Your task to perform on an android device: Search for a new hair product Image 0: 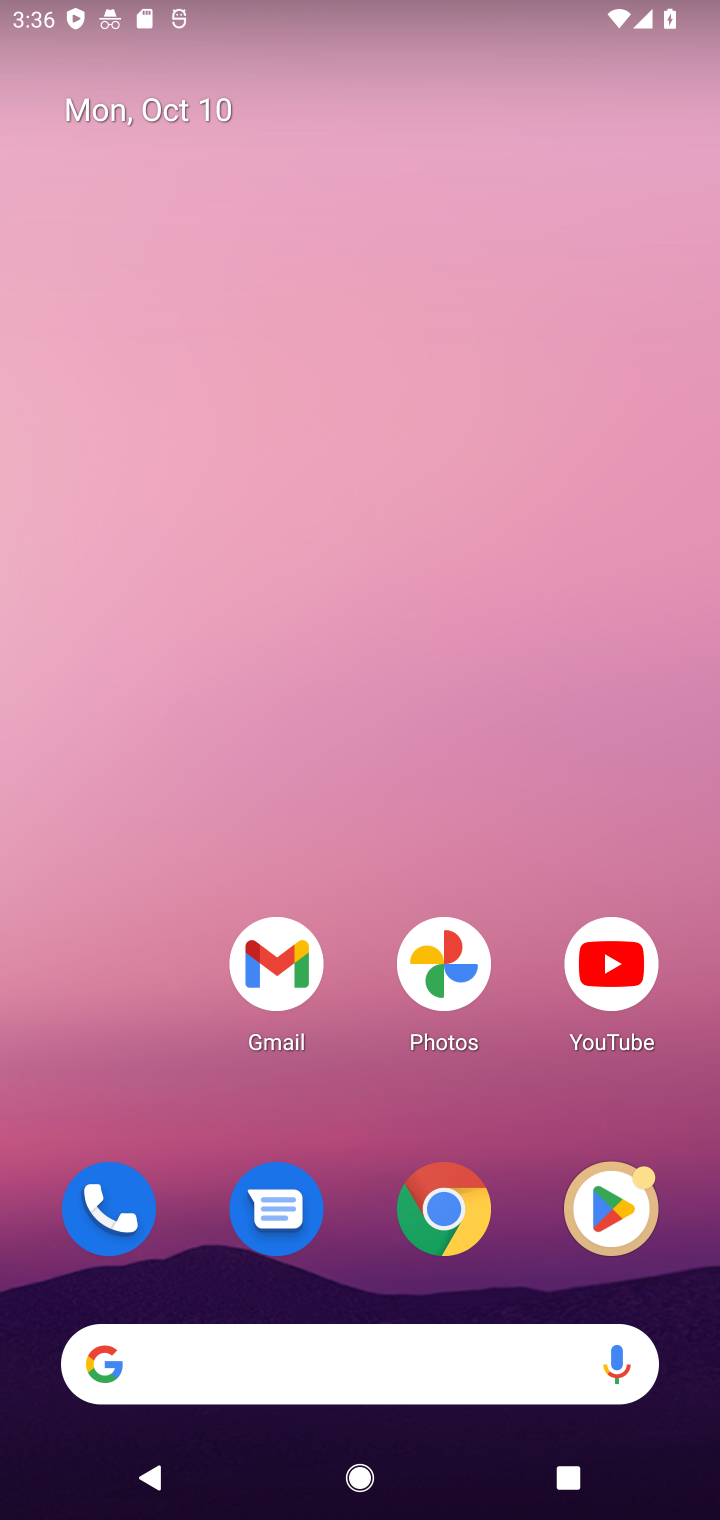
Step 0: click (463, 1198)
Your task to perform on an android device: Search for a new hair product Image 1: 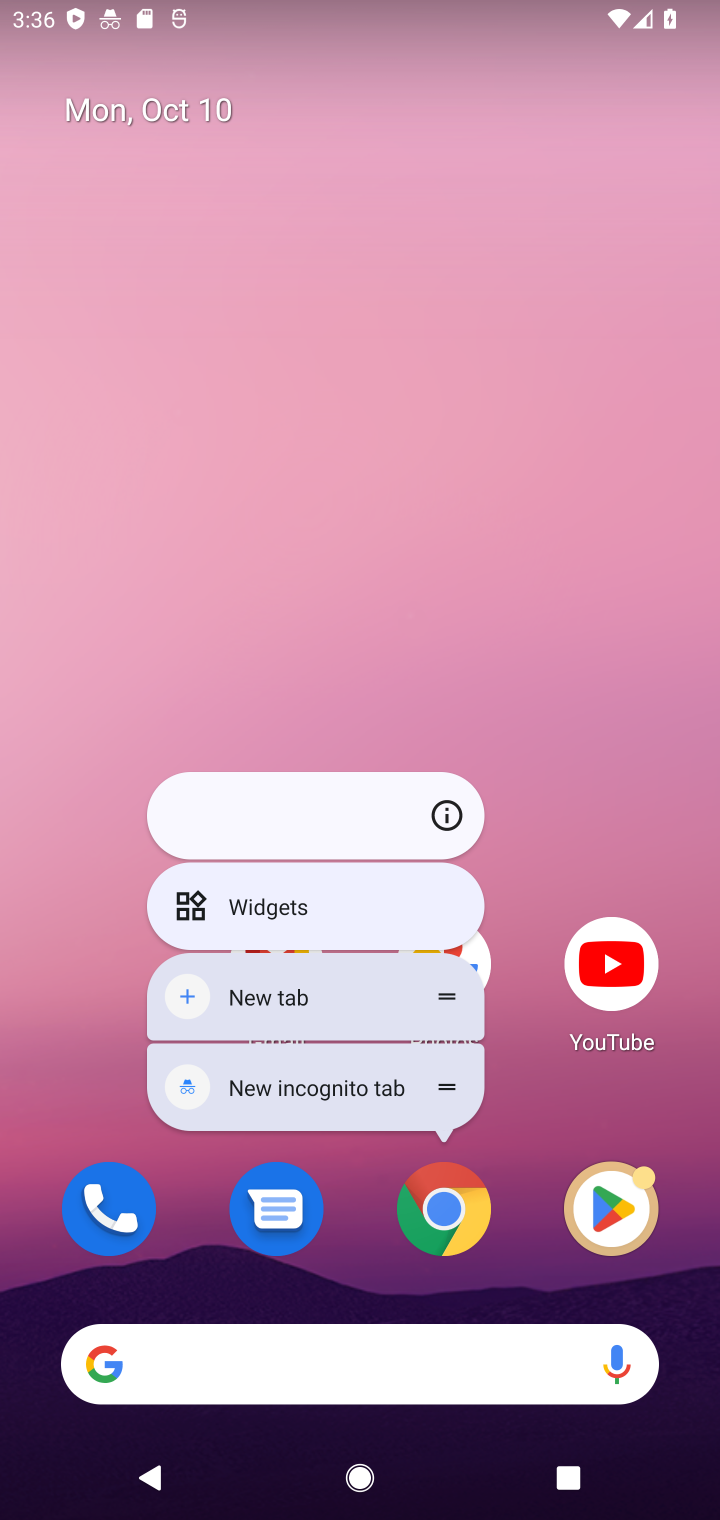
Step 1: click (463, 1198)
Your task to perform on an android device: Search for a new hair product Image 2: 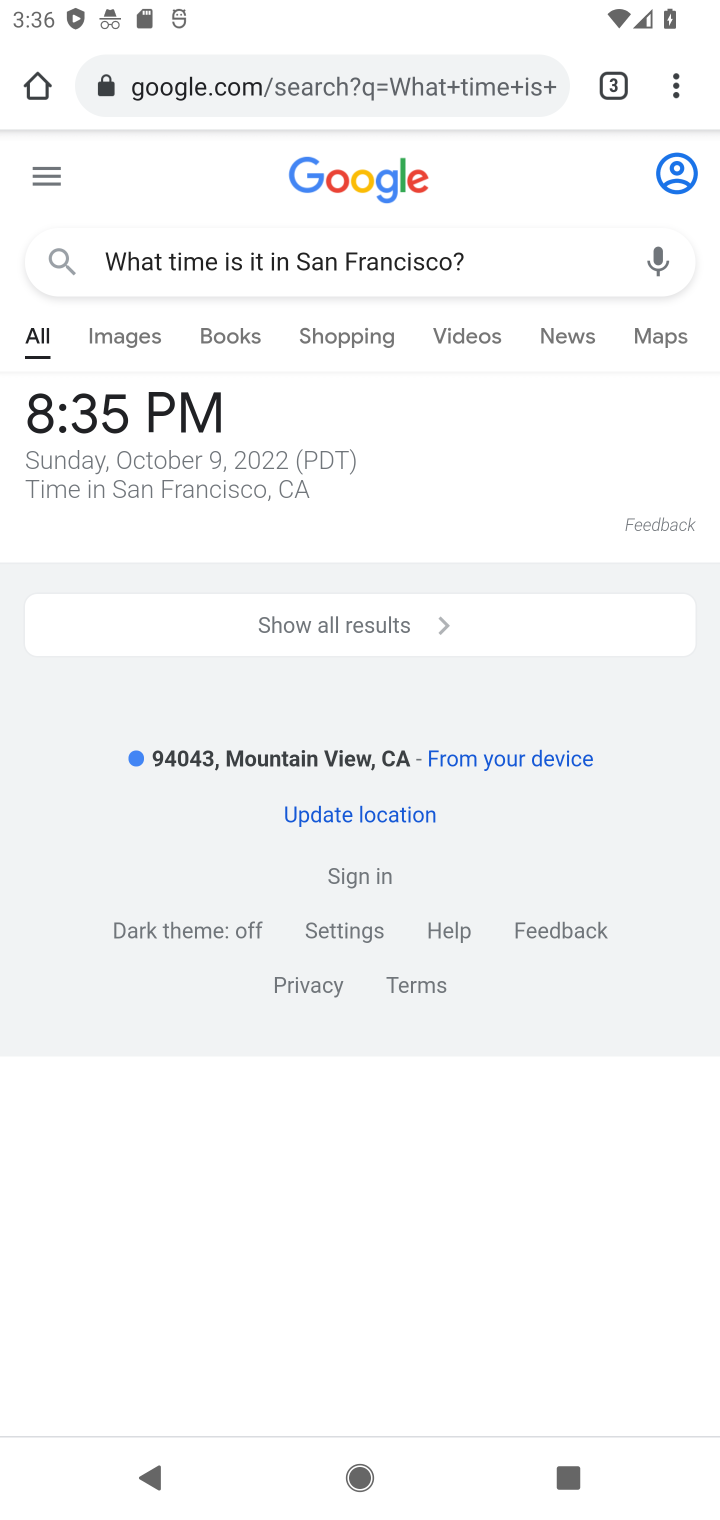
Step 2: click (487, 256)
Your task to perform on an android device: Search for a new hair product Image 3: 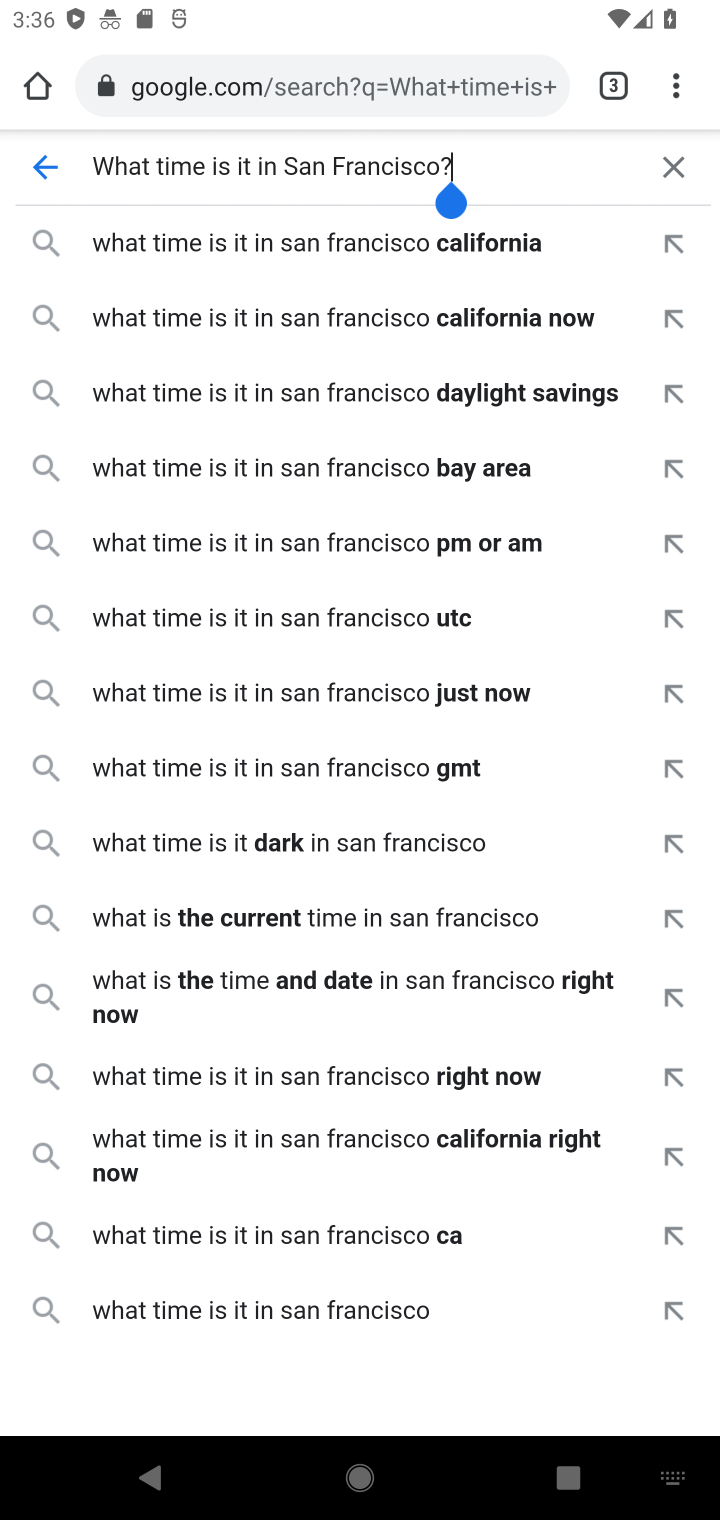
Step 3: click (676, 167)
Your task to perform on an android device: Search for a new hair product Image 4: 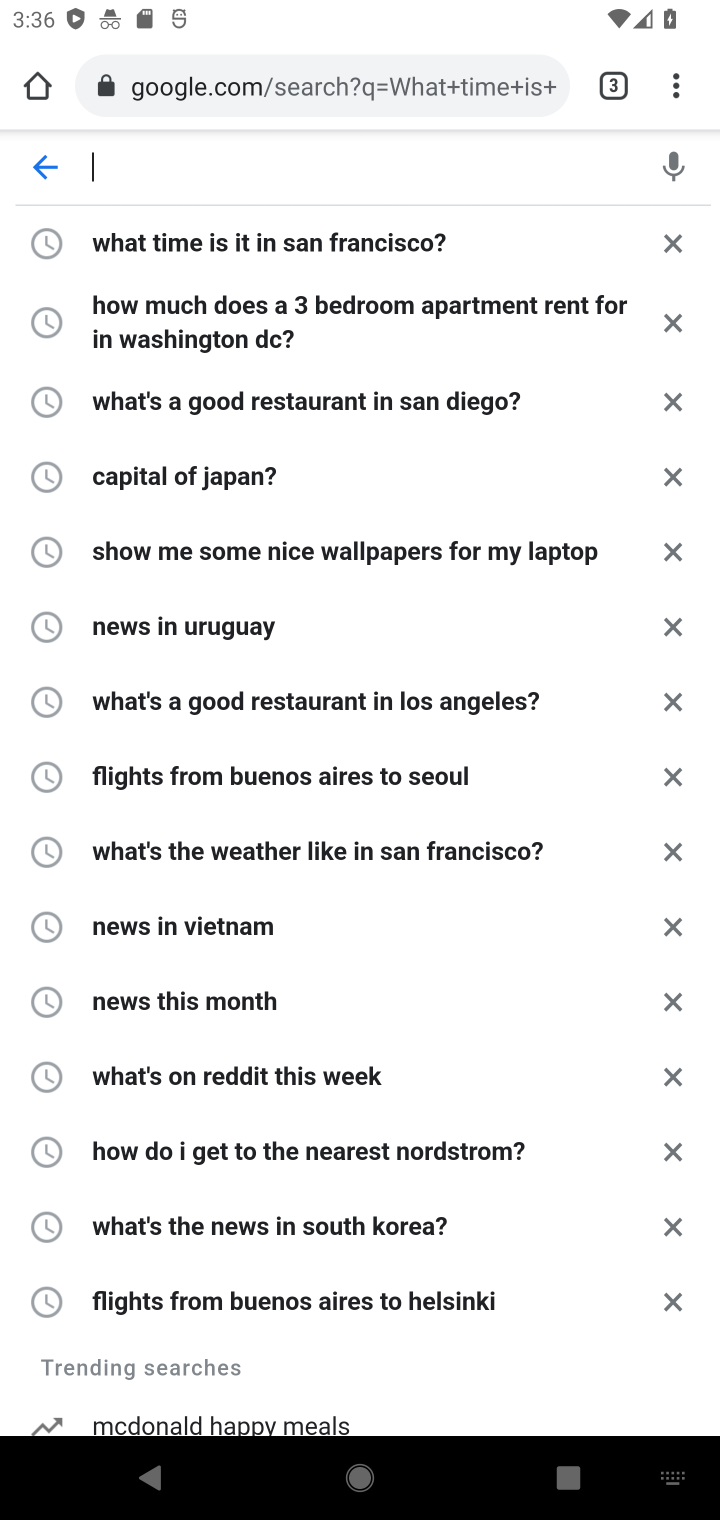
Step 4: type "new hair product"
Your task to perform on an android device: Search for a new hair product Image 5: 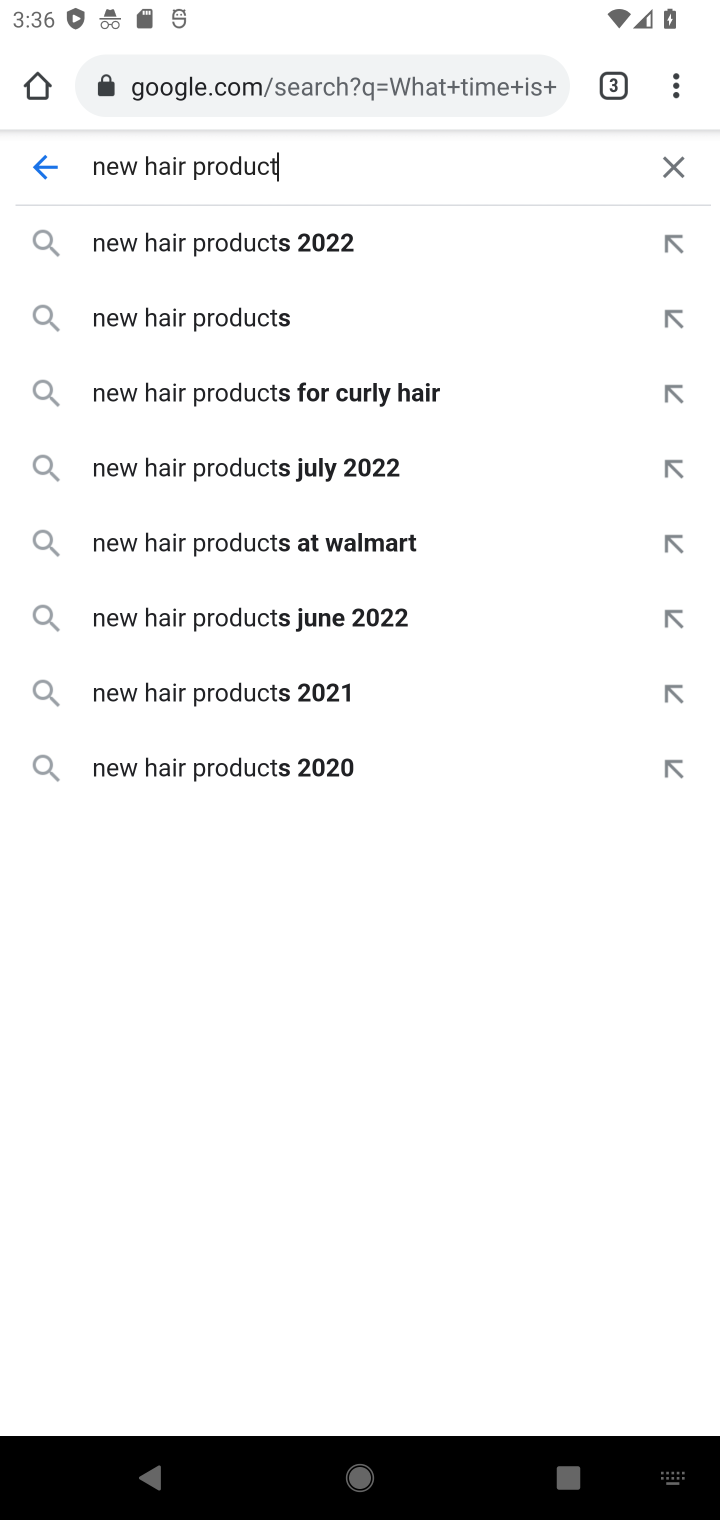
Step 5: press enter
Your task to perform on an android device: Search for a new hair product Image 6: 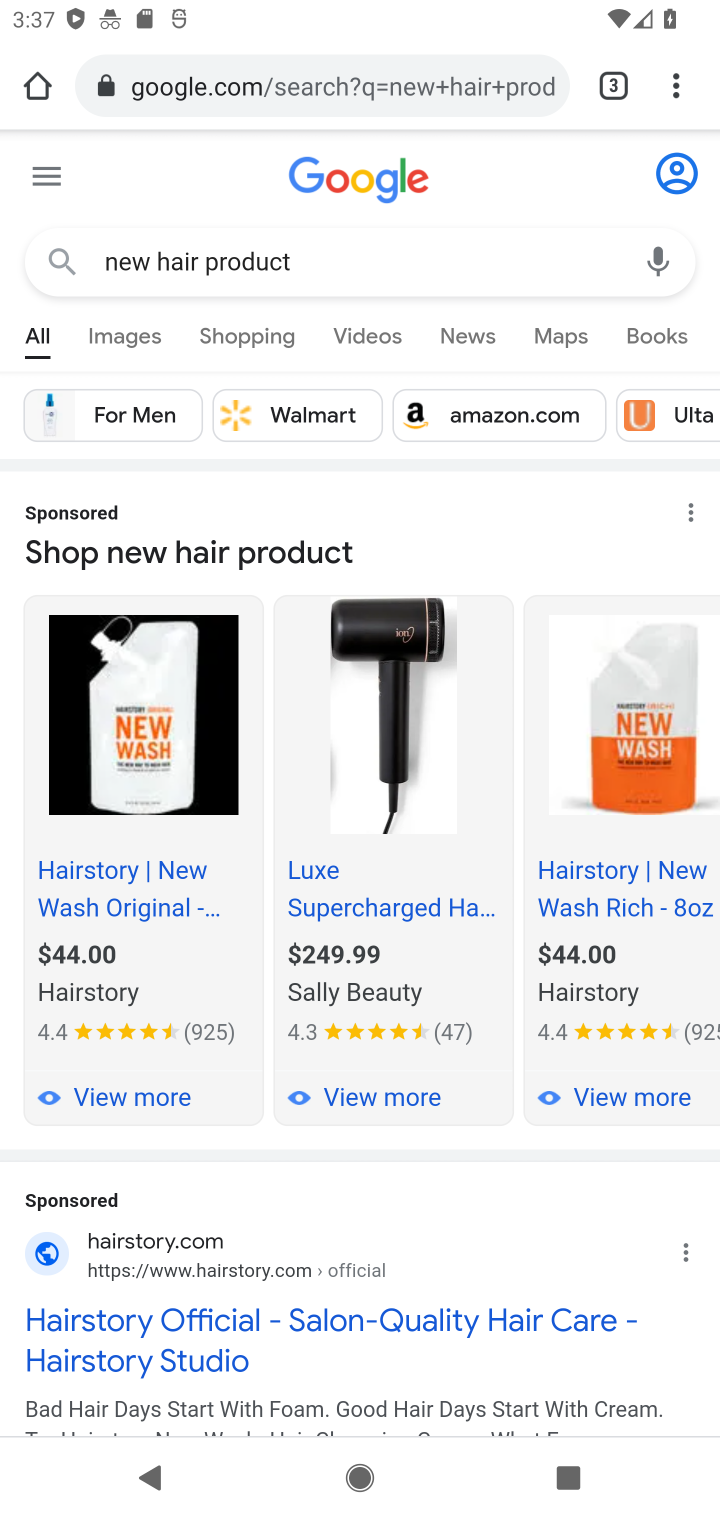
Step 6: task complete